Your task to perform on an android device: find which apps use the phone's location Image 0: 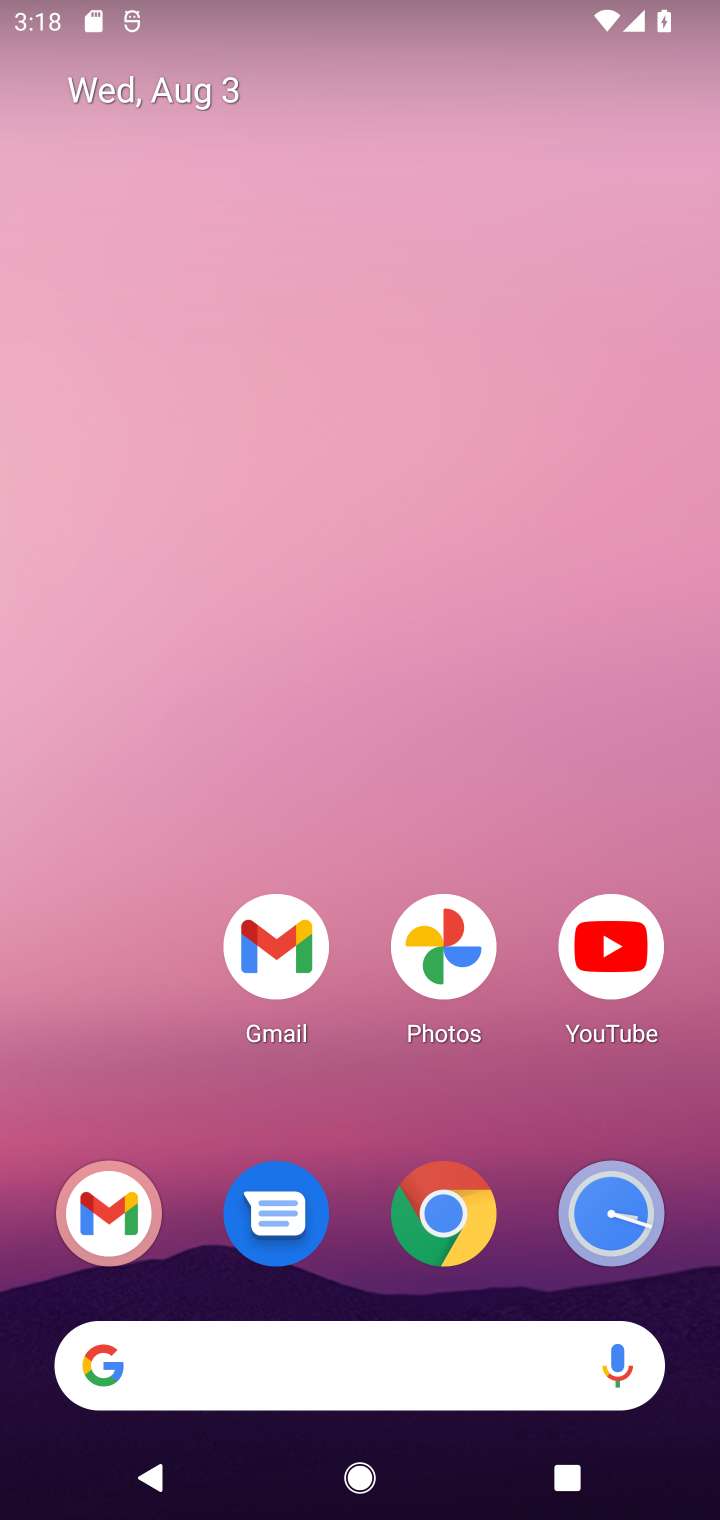
Step 0: drag from (361, 1248) to (390, 431)
Your task to perform on an android device: find which apps use the phone's location Image 1: 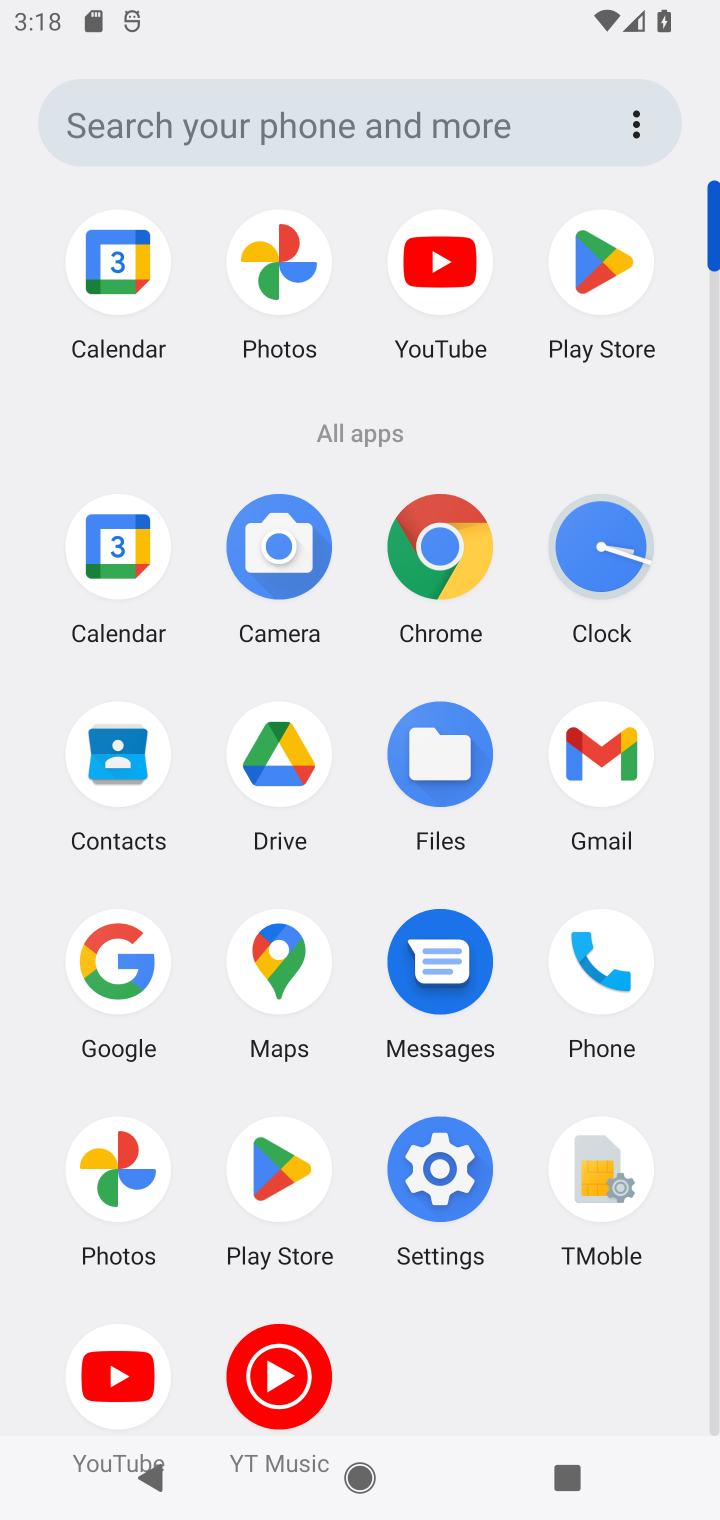
Step 1: click (412, 1172)
Your task to perform on an android device: find which apps use the phone's location Image 2: 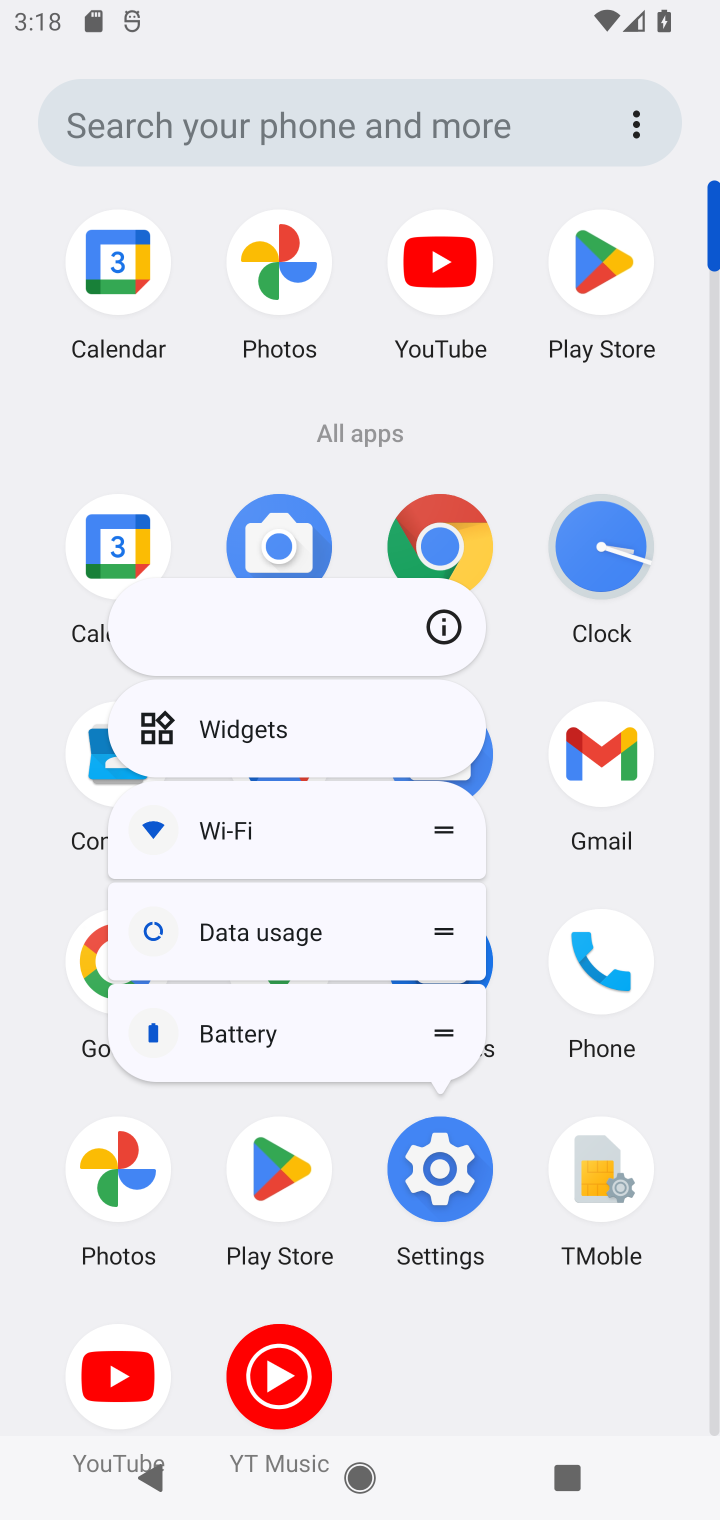
Step 2: click (424, 1187)
Your task to perform on an android device: find which apps use the phone's location Image 3: 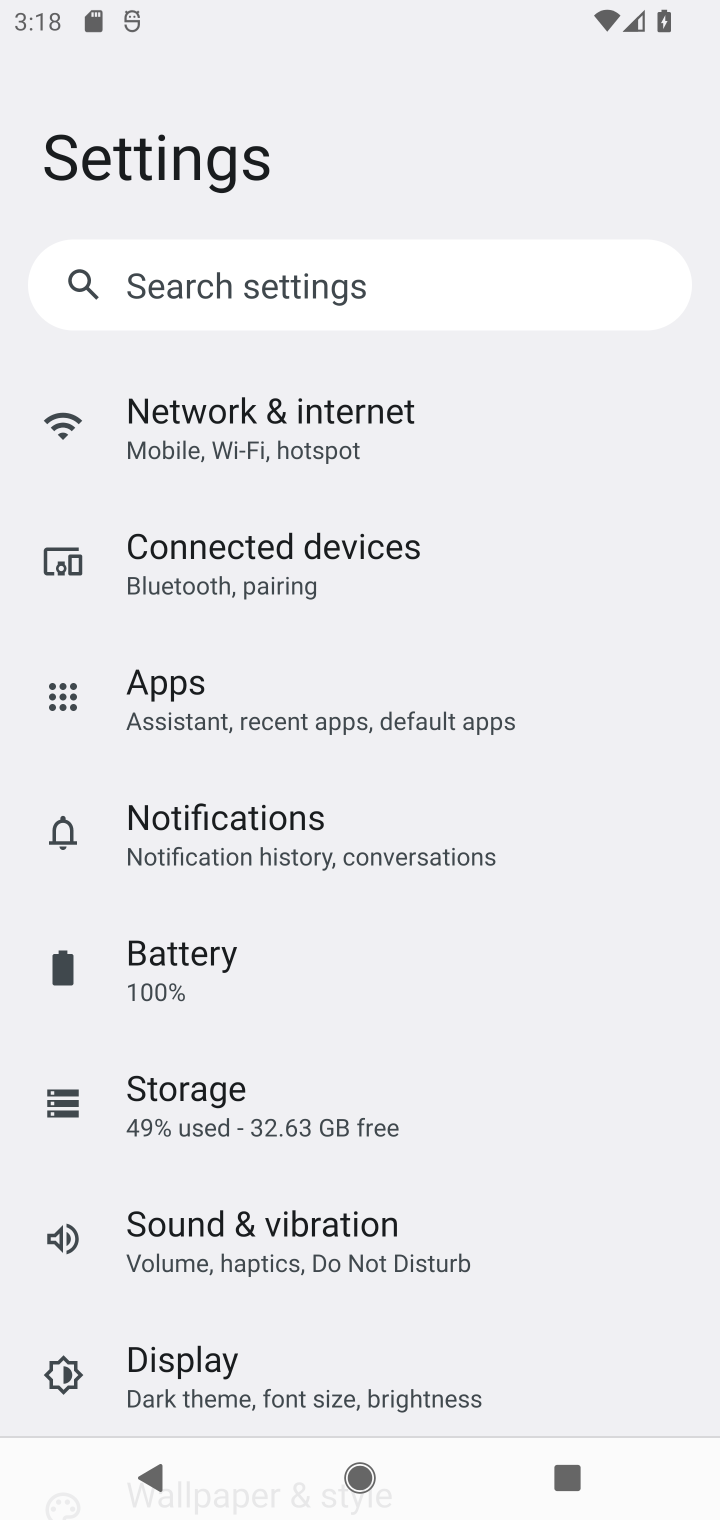
Step 3: drag from (274, 1244) to (364, 237)
Your task to perform on an android device: find which apps use the phone's location Image 4: 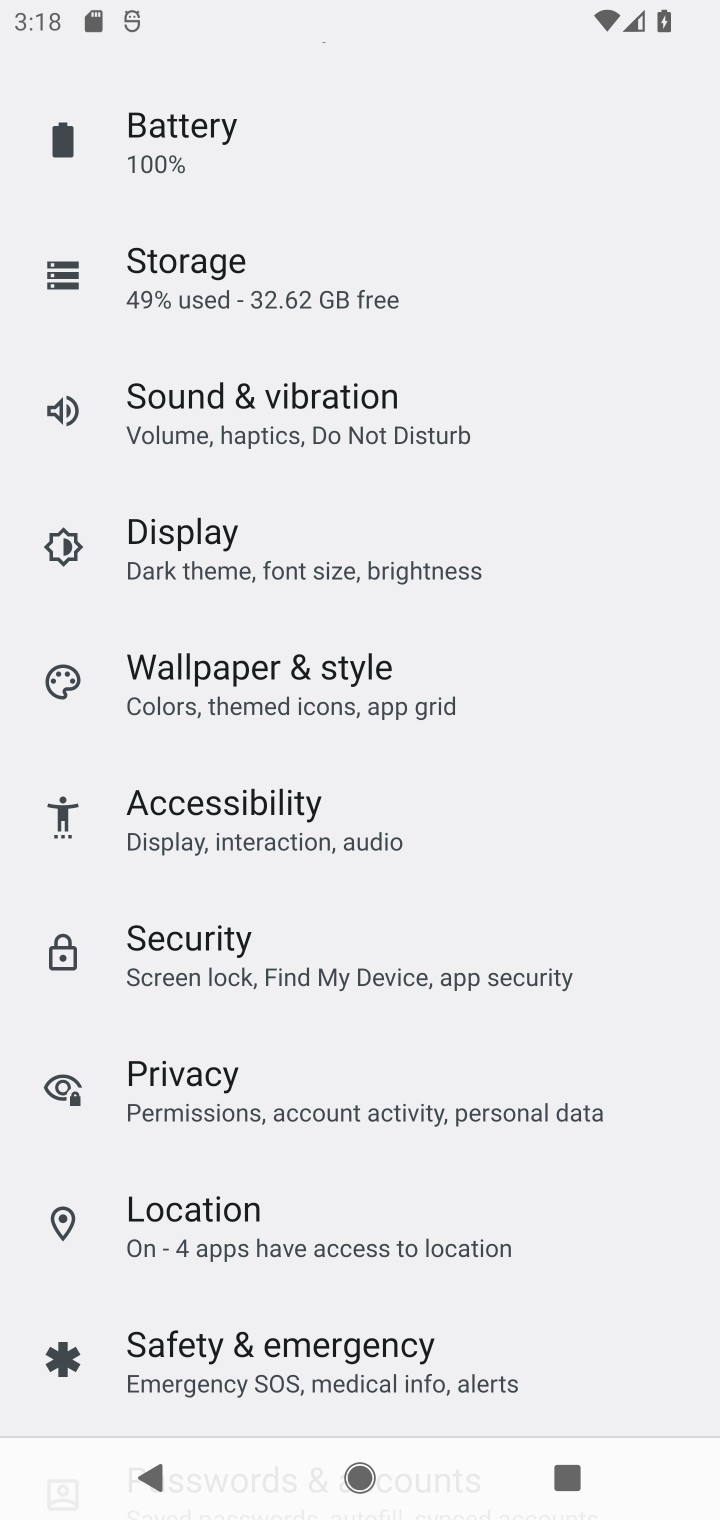
Step 4: click (245, 1201)
Your task to perform on an android device: find which apps use the phone's location Image 5: 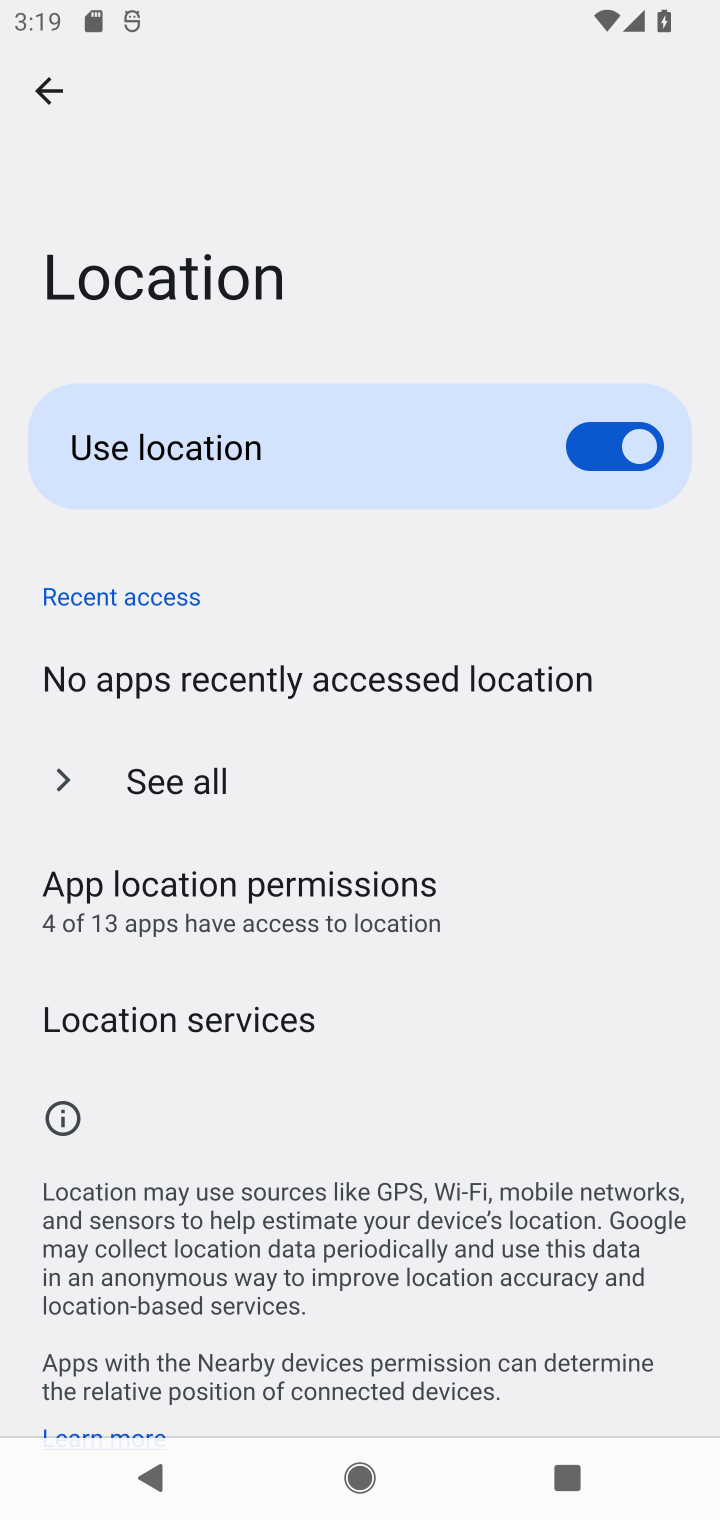
Step 5: task complete